Your task to perform on an android device: Open Maps and search for coffee Image 0: 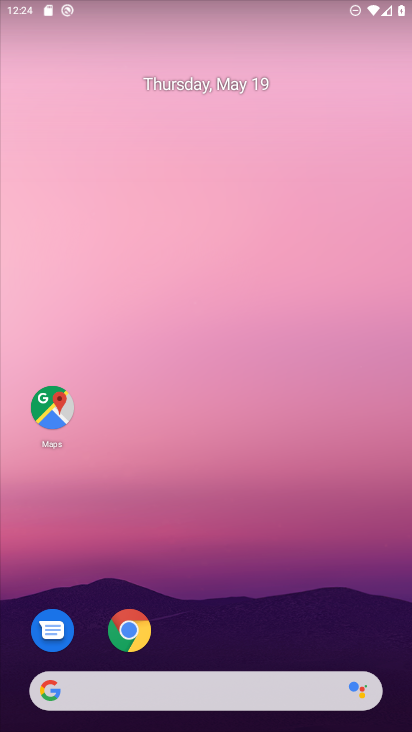
Step 0: drag from (230, 609) to (308, 213)
Your task to perform on an android device: Open Maps and search for coffee Image 1: 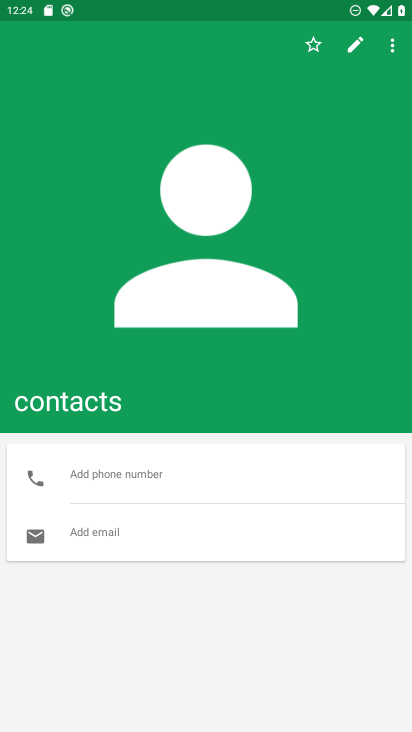
Step 1: drag from (212, 602) to (231, 221)
Your task to perform on an android device: Open Maps and search for coffee Image 2: 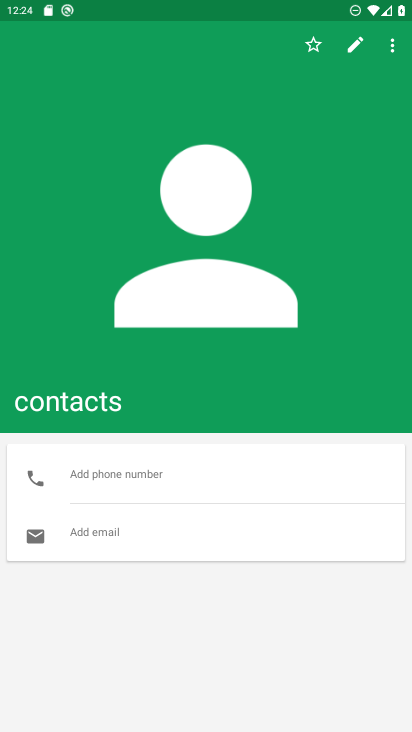
Step 2: press back button
Your task to perform on an android device: Open Maps and search for coffee Image 3: 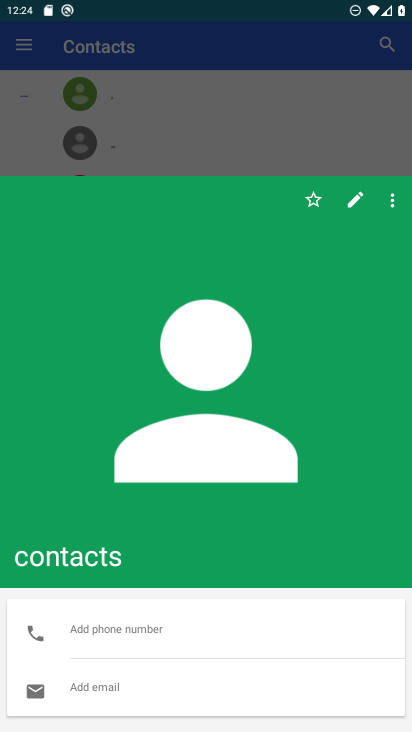
Step 3: press home button
Your task to perform on an android device: Open Maps and search for coffee Image 4: 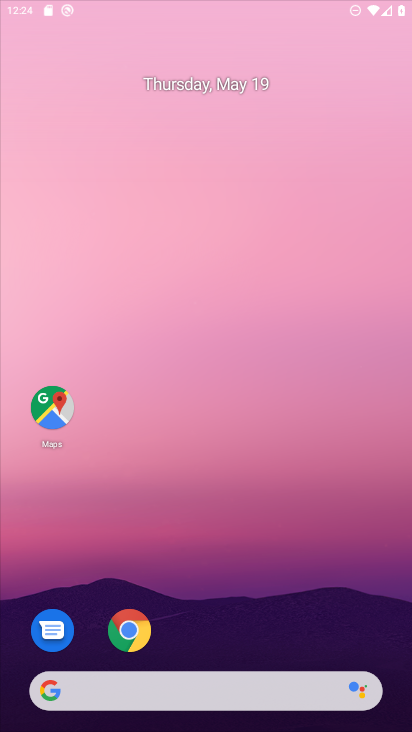
Step 4: drag from (181, 668) to (226, 324)
Your task to perform on an android device: Open Maps and search for coffee Image 5: 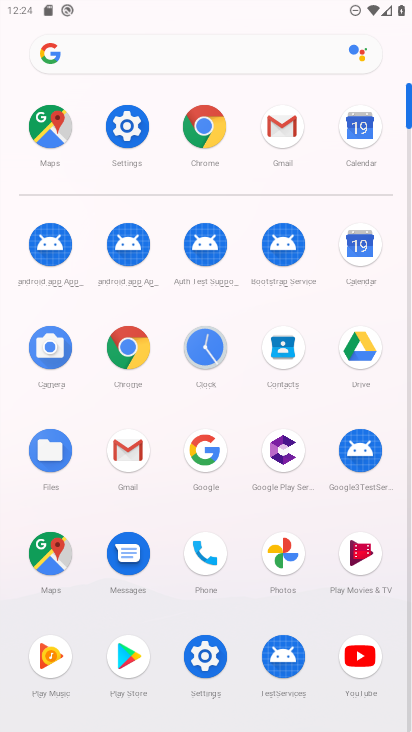
Step 5: click (54, 567)
Your task to perform on an android device: Open Maps and search for coffee Image 6: 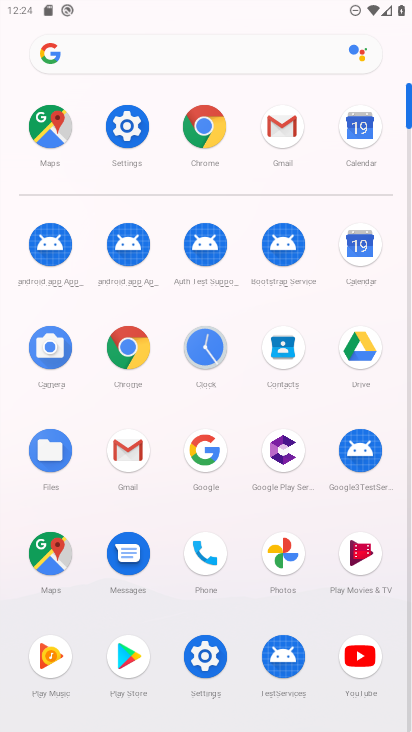
Step 6: click (54, 567)
Your task to perform on an android device: Open Maps and search for coffee Image 7: 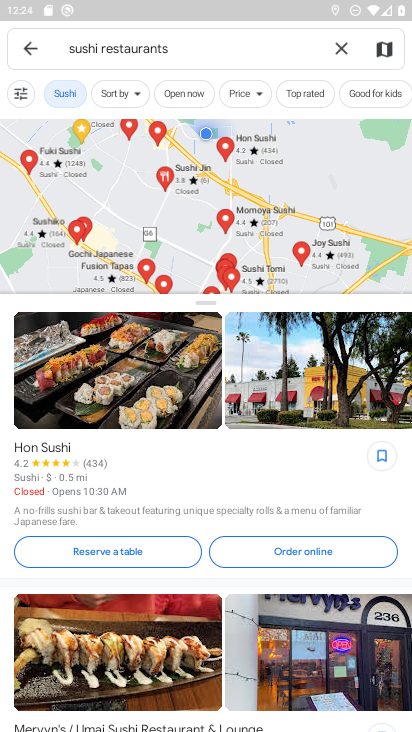
Step 7: click (337, 58)
Your task to perform on an android device: Open Maps and search for coffee Image 8: 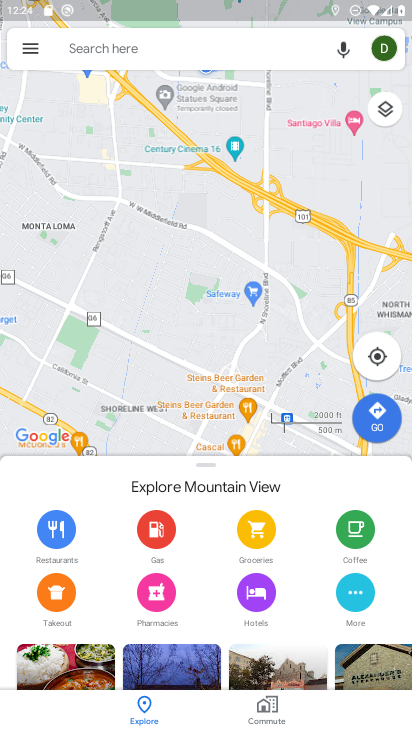
Step 8: click (229, 55)
Your task to perform on an android device: Open Maps and search for coffee Image 9: 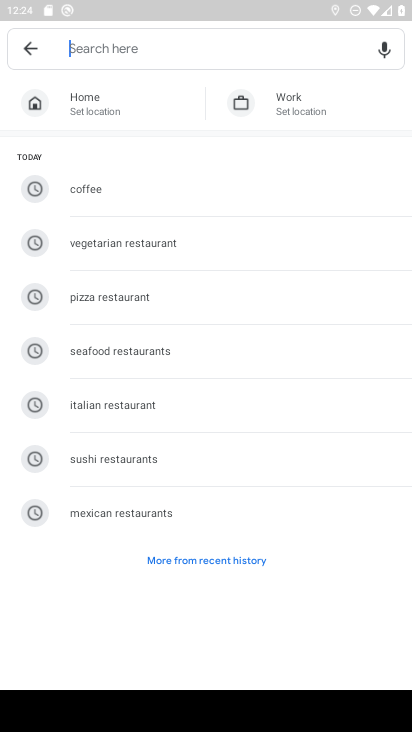
Step 9: click (72, 197)
Your task to perform on an android device: Open Maps and search for coffee Image 10: 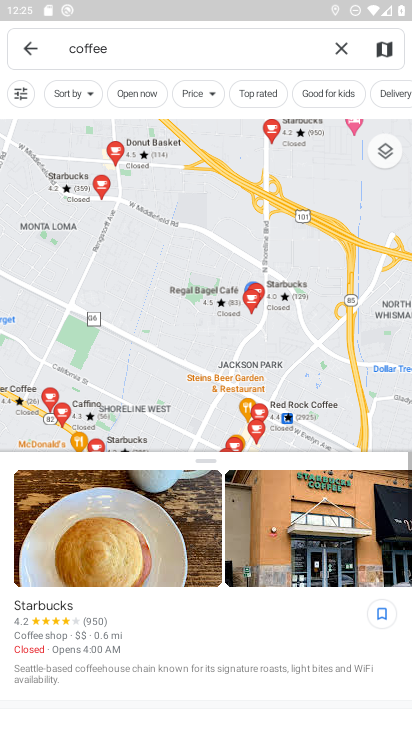
Step 10: task complete